Your task to perform on an android device: turn on location history Image 0: 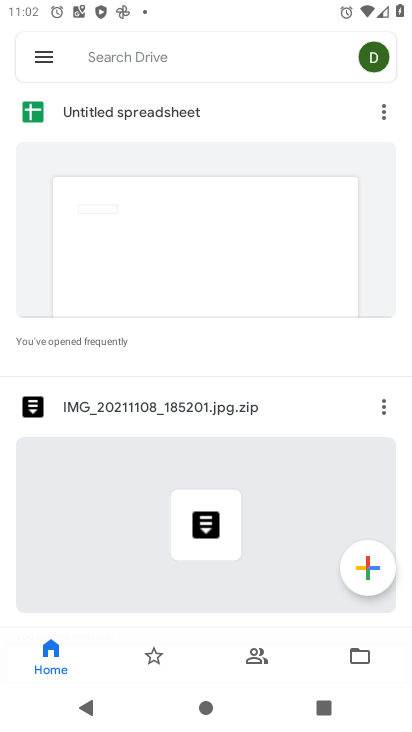
Step 0: press home button
Your task to perform on an android device: turn on location history Image 1: 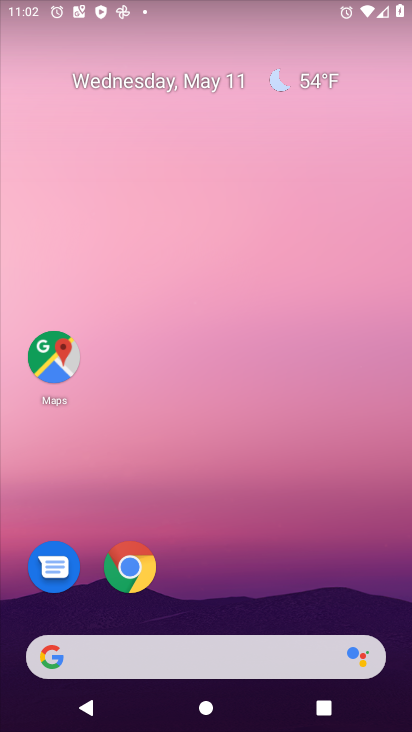
Step 1: drag from (226, 608) to (72, 15)
Your task to perform on an android device: turn on location history Image 2: 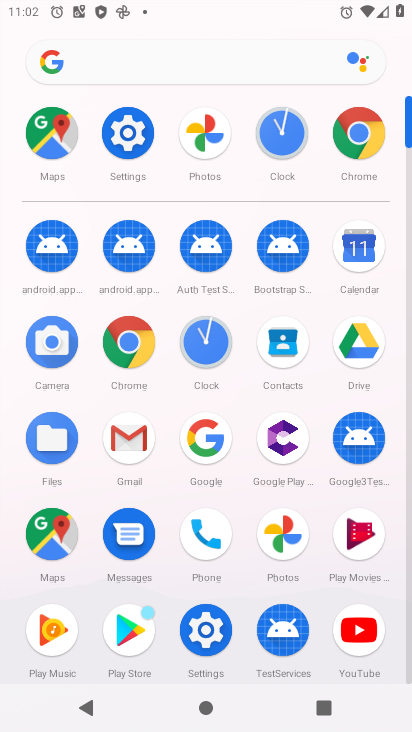
Step 2: click (207, 619)
Your task to perform on an android device: turn on location history Image 3: 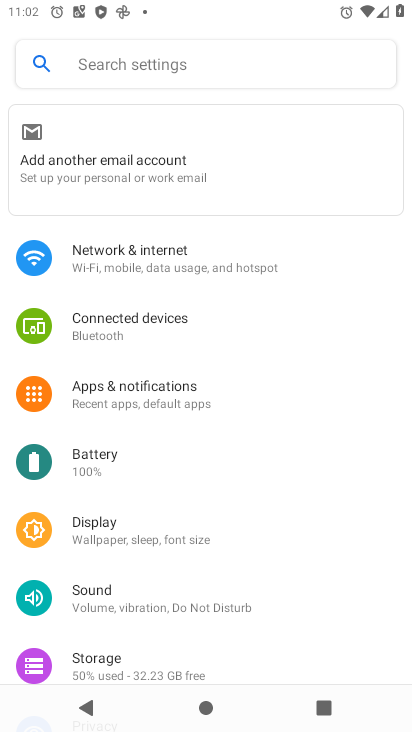
Step 3: drag from (163, 619) to (182, 159)
Your task to perform on an android device: turn on location history Image 4: 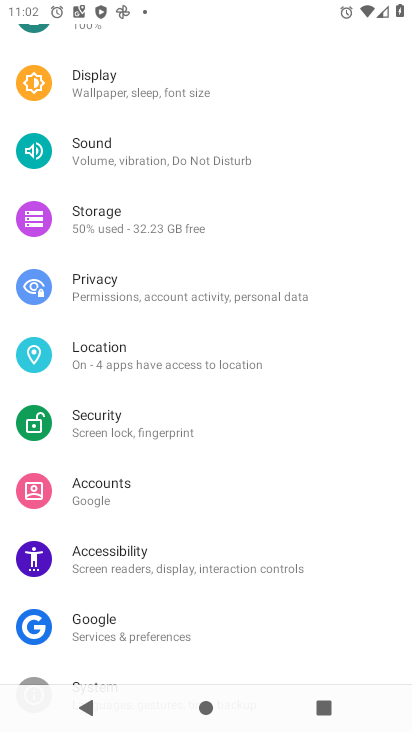
Step 4: click (119, 348)
Your task to perform on an android device: turn on location history Image 5: 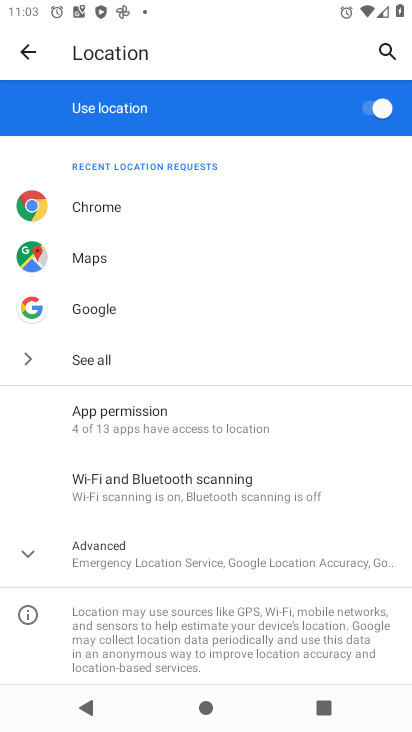
Step 5: click (125, 568)
Your task to perform on an android device: turn on location history Image 6: 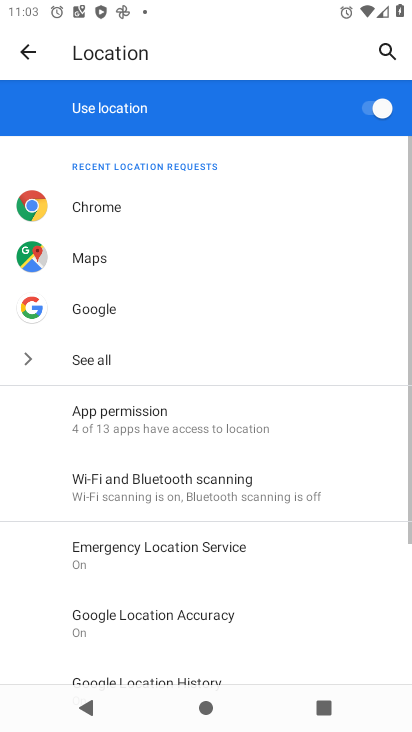
Step 6: drag from (169, 613) to (210, 370)
Your task to perform on an android device: turn on location history Image 7: 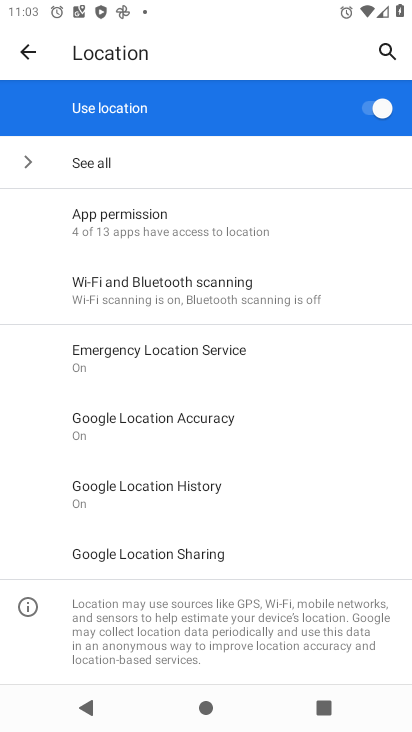
Step 7: click (175, 492)
Your task to perform on an android device: turn on location history Image 8: 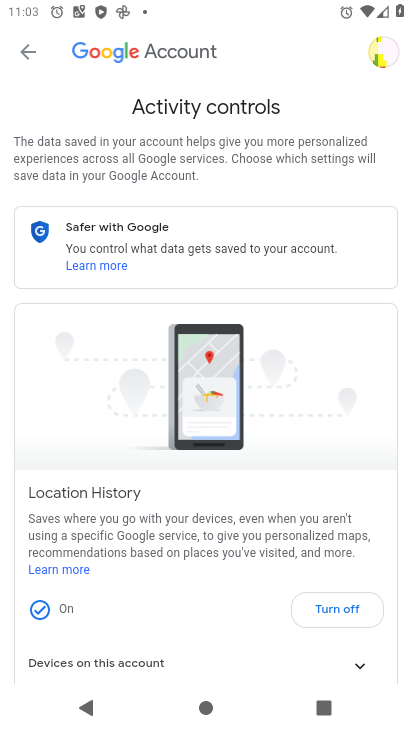
Step 8: task complete